Your task to perform on an android device: turn off improve location accuracy Image 0: 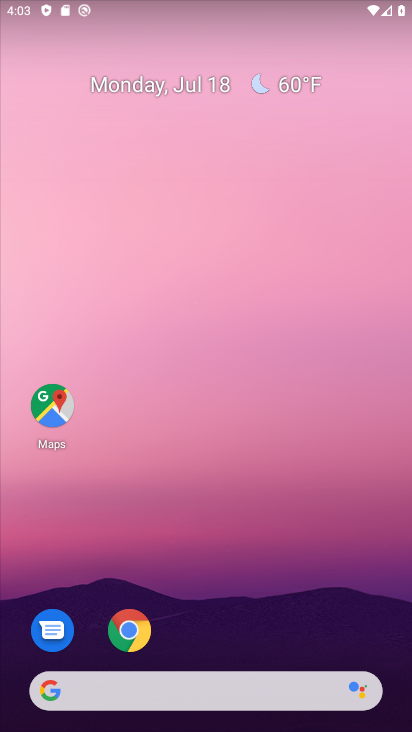
Step 0: click (161, 183)
Your task to perform on an android device: turn off improve location accuracy Image 1: 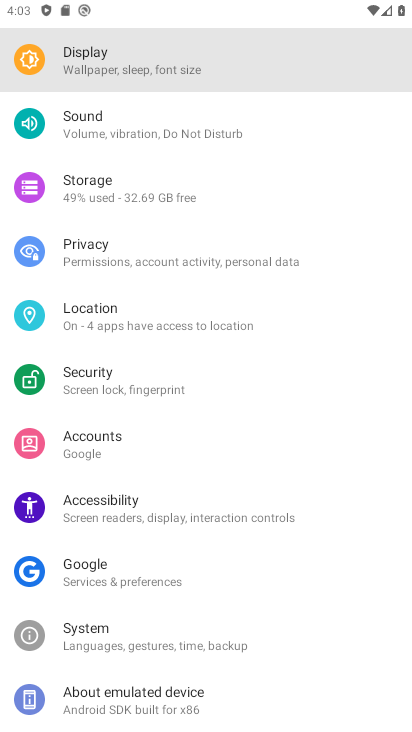
Step 1: drag from (193, 684) to (205, 244)
Your task to perform on an android device: turn off improve location accuracy Image 2: 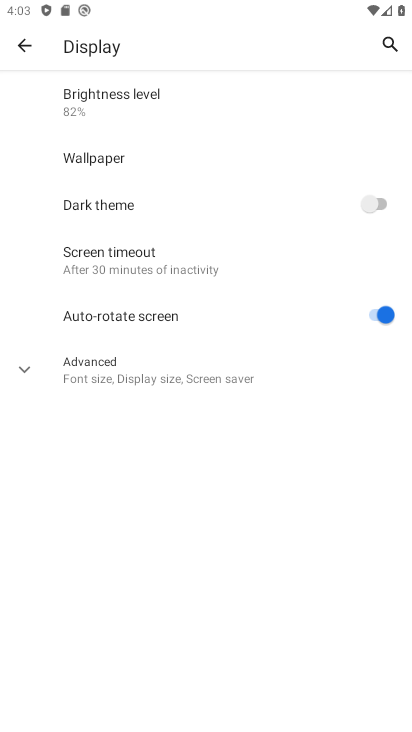
Step 2: click (4, 25)
Your task to perform on an android device: turn off improve location accuracy Image 3: 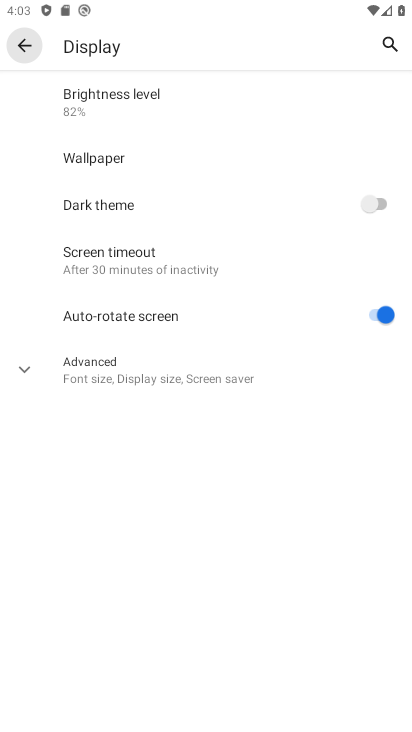
Step 3: click (23, 44)
Your task to perform on an android device: turn off improve location accuracy Image 4: 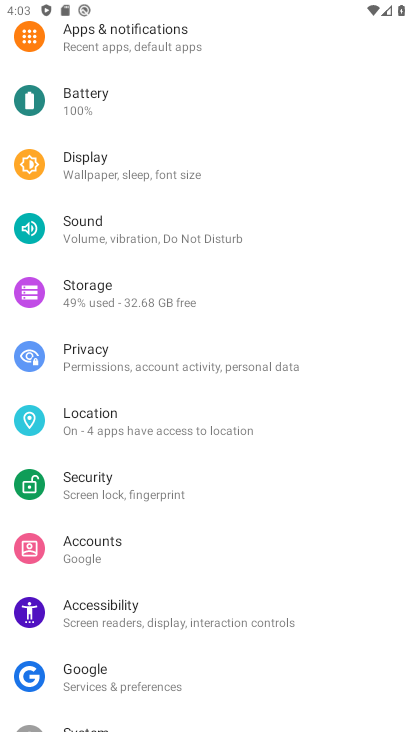
Step 4: click (95, 425)
Your task to perform on an android device: turn off improve location accuracy Image 5: 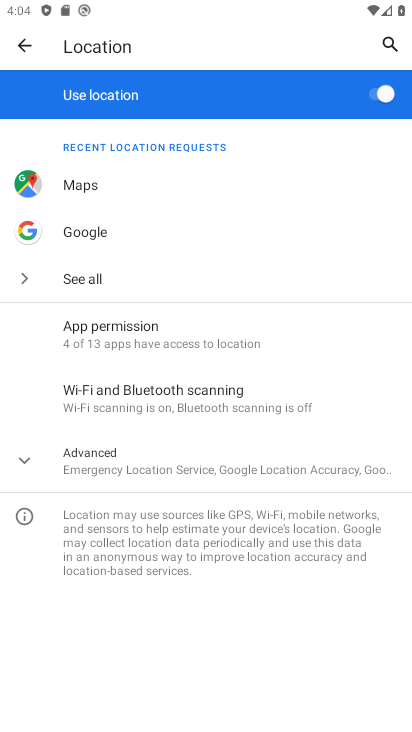
Step 5: click (118, 459)
Your task to perform on an android device: turn off improve location accuracy Image 6: 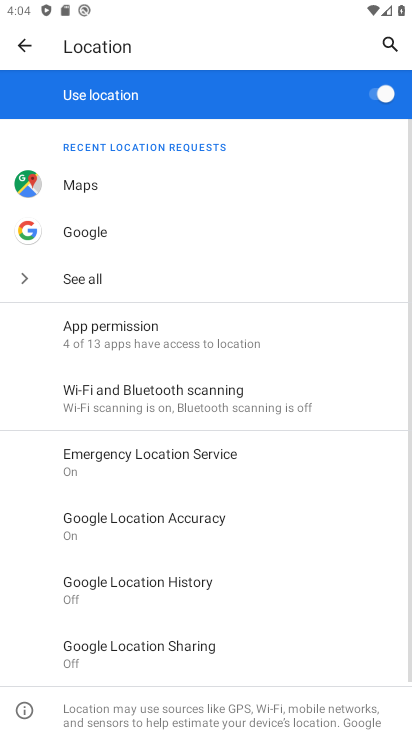
Step 6: click (171, 515)
Your task to perform on an android device: turn off improve location accuracy Image 7: 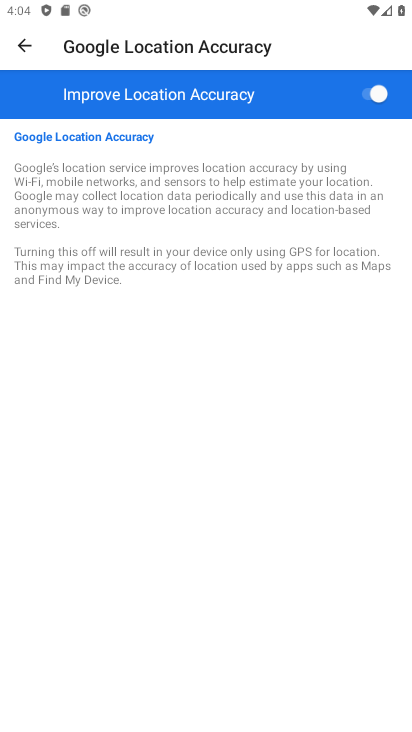
Step 7: click (378, 96)
Your task to perform on an android device: turn off improve location accuracy Image 8: 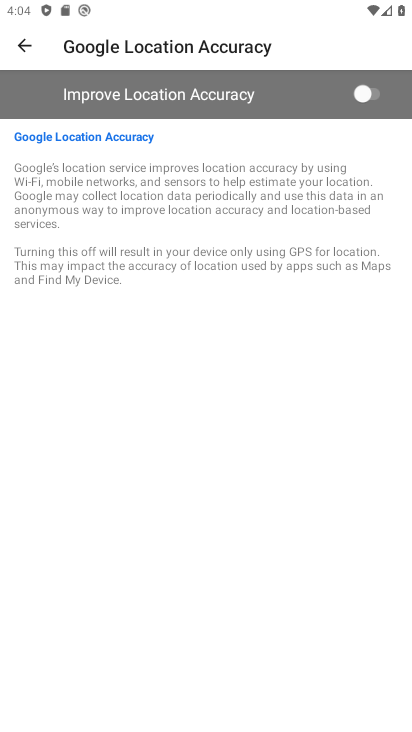
Step 8: task complete